Your task to perform on an android device: Go to Android settings Image 0: 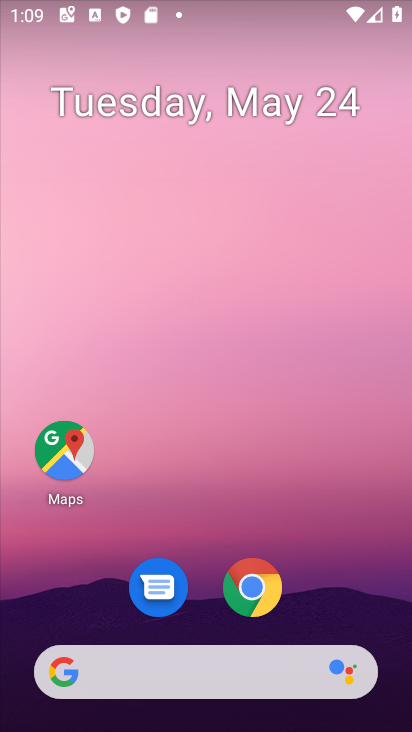
Step 0: drag from (219, 698) to (204, 5)
Your task to perform on an android device: Go to Android settings Image 1: 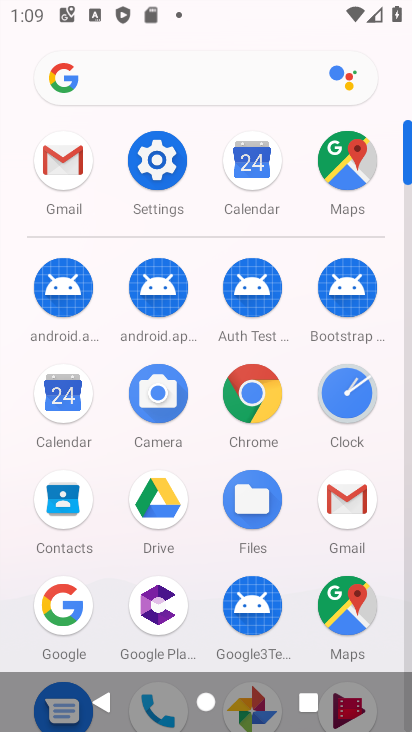
Step 1: click (146, 159)
Your task to perform on an android device: Go to Android settings Image 2: 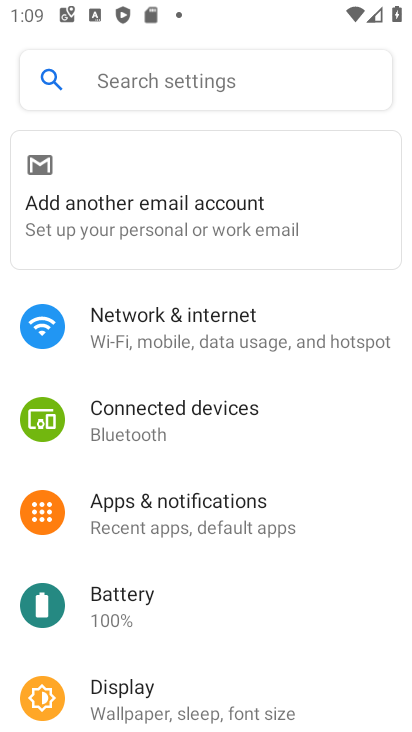
Step 2: task complete